Your task to perform on an android device: turn on sleep mode Image 0: 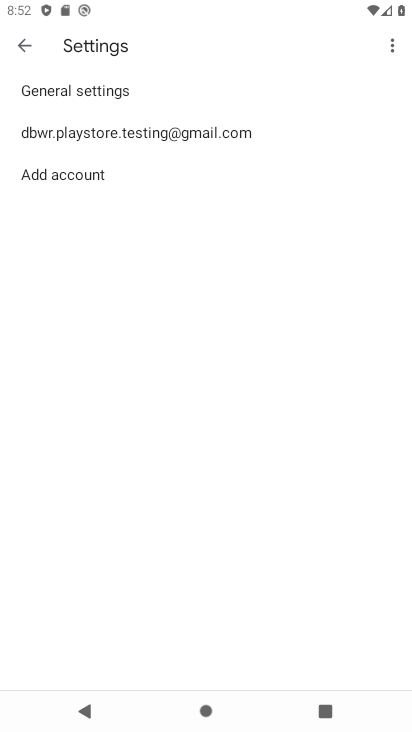
Step 0: press back button
Your task to perform on an android device: turn on sleep mode Image 1: 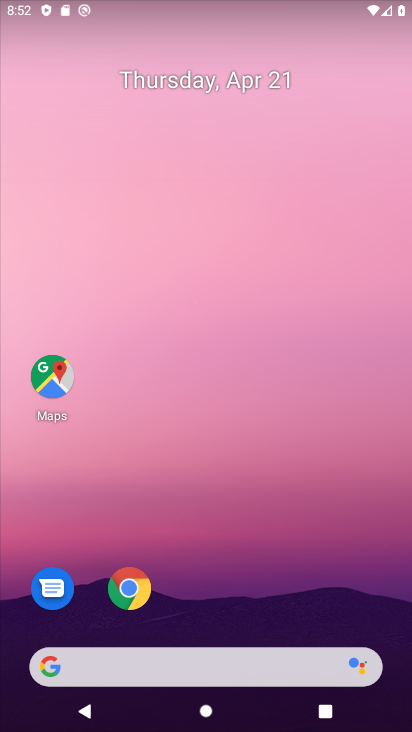
Step 1: drag from (290, 476) to (210, 3)
Your task to perform on an android device: turn on sleep mode Image 2: 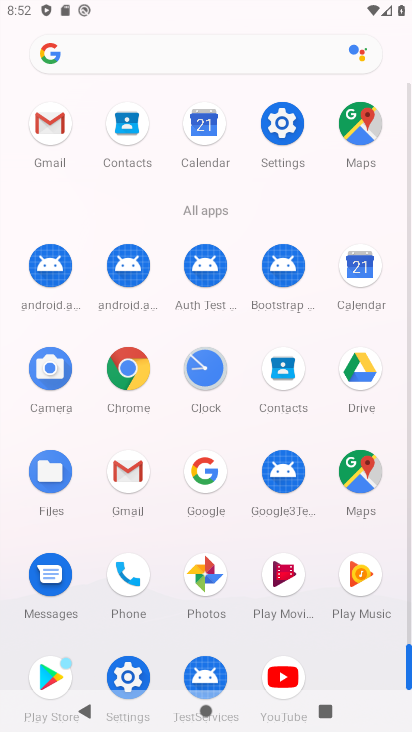
Step 2: drag from (2, 523) to (5, 258)
Your task to perform on an android device: turn on sleep mode Image 3: 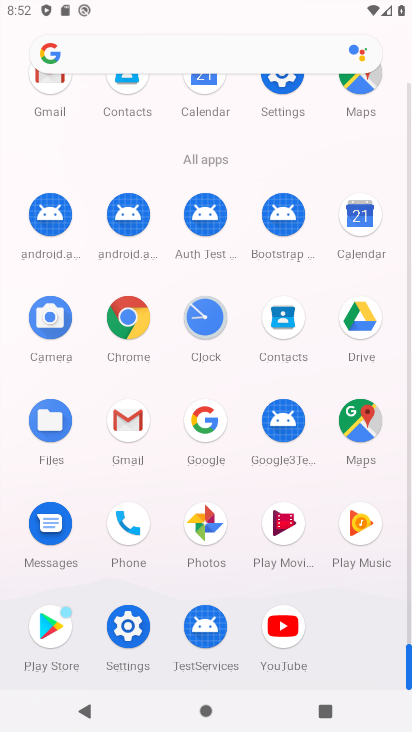
Step 3: click (126, 618)
Your task to perform on an android device: turn on sleep mode Image 4: 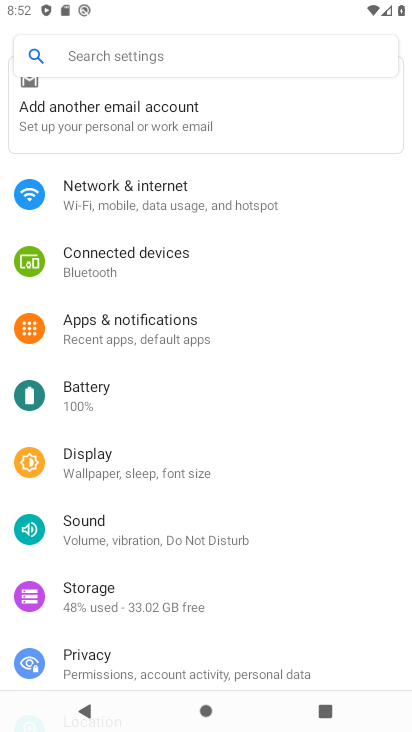
Step 4: click (157, 465)
Your task to perform on an android device: turn on sleep mode Image 5: 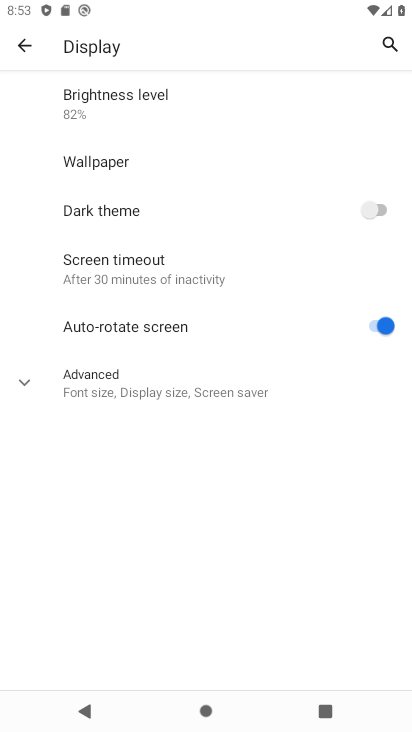
Step 5: click (26, 389)
Your task to perform on an android device: turn on sleep mode Image 6: 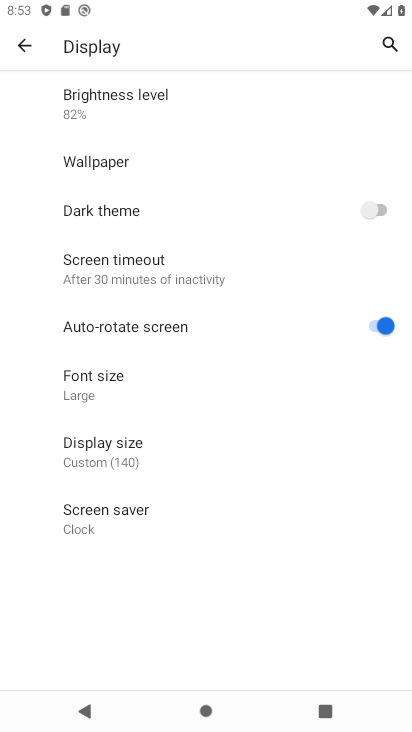
Step 6: task complete